Your task to perform on an android device: Show me popular games on the Play Store Image 0: 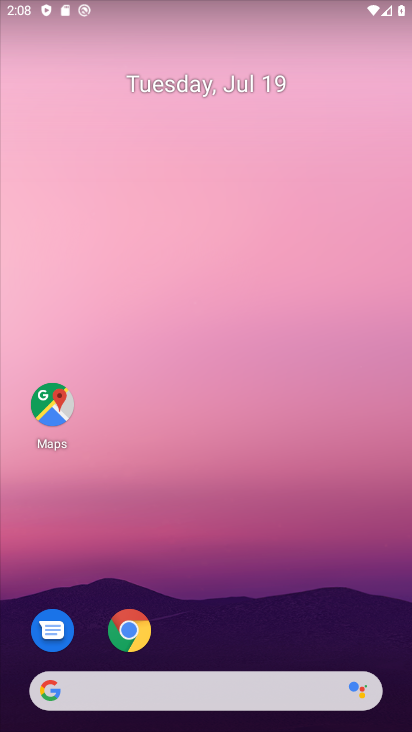
Step 0: drag from (259, 661) to (299, 44)
Your task to perform on an android device: Show me popular games on the Play Store Image 1: 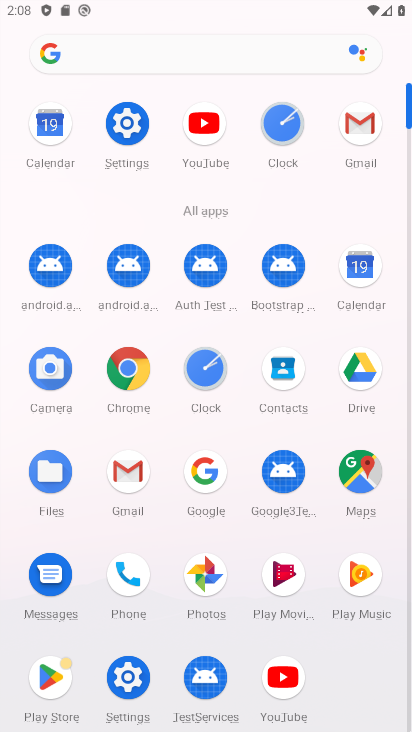
Step 1: click (55, 672)
Your task to perform on an android device: Show me popular games on the Play Store Image 2: 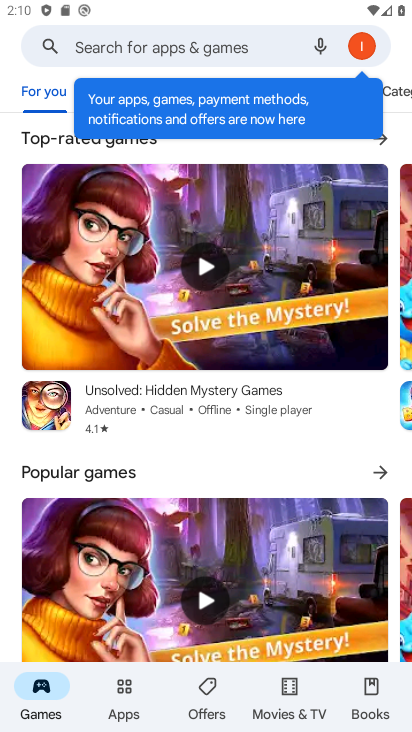
Step 2: click (378, 466)
Your task to perform on an android device: Show me popular games on the Play Store Image 3: 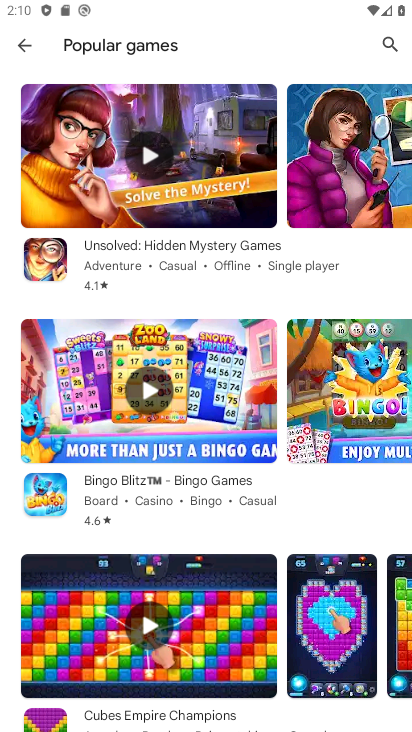
Step 3: task complete